Your task to perform on an android device: add a contact Image 0: 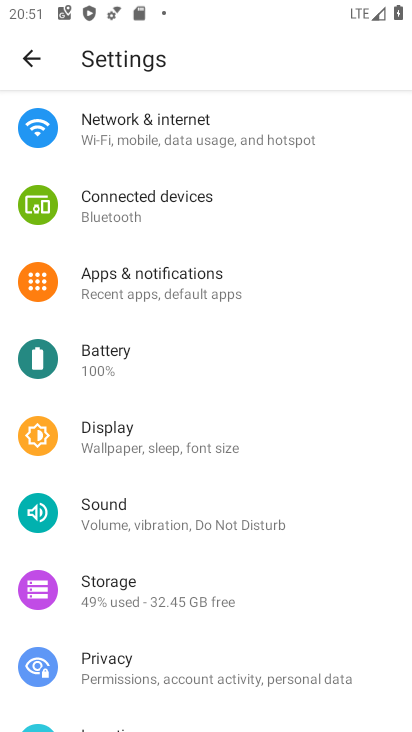
Step 0: press back button
Your task to perform on an android device: add a contact Image 1: 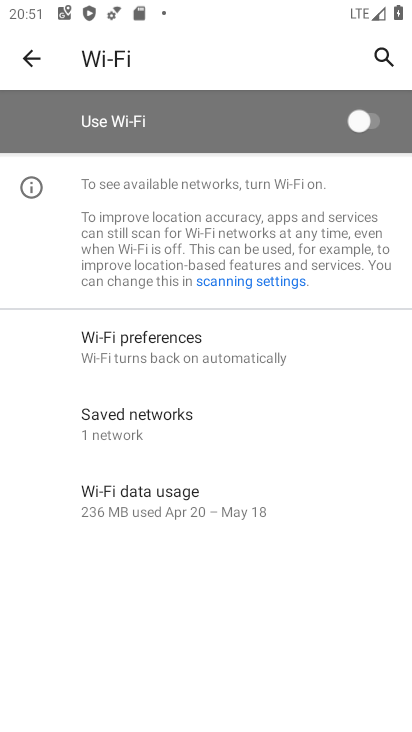
Step 1: press back button
Your task to perform on an android device: add a contact Image 2: 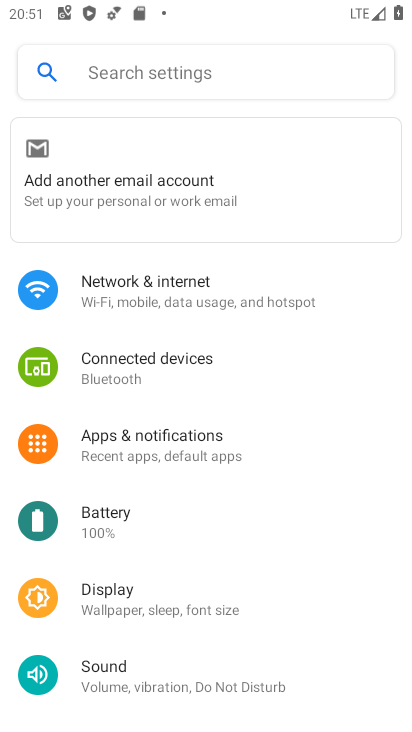
Step 2: press back button
Your task to perform on an android device: add a contact Image 3: 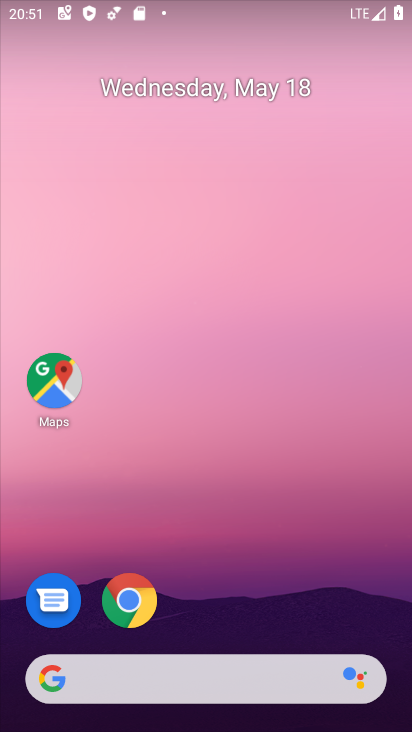
Step 3: drag from (252, 642) to (309, 43)
Your task to perform on an android device: add a contact Image 4: 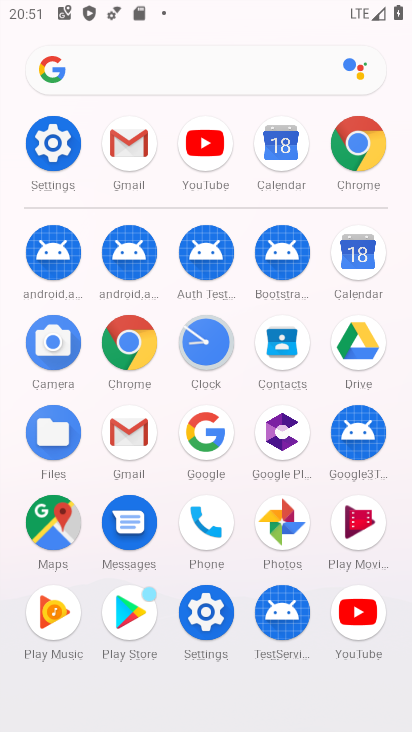
Step 4: click (286, 338)
Your task to perform on an android device: add a contact Image 5: 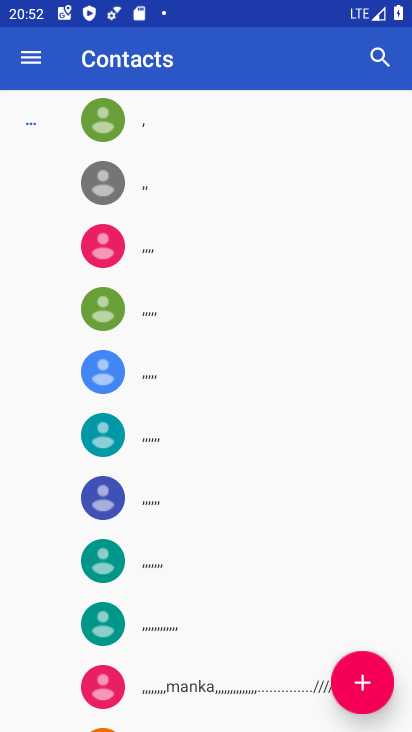
Step 5: click (354, 685)
Your task to perform on an android device: add a contact Image 6: 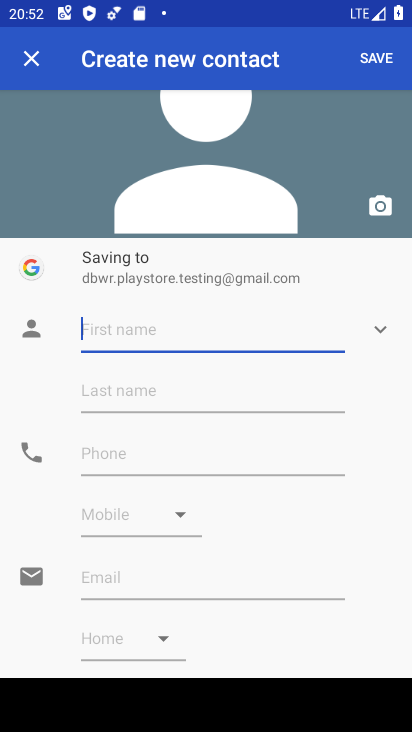
Step 6: click (126, 330)
Your task to perform on an android device: add a contact Image 7: 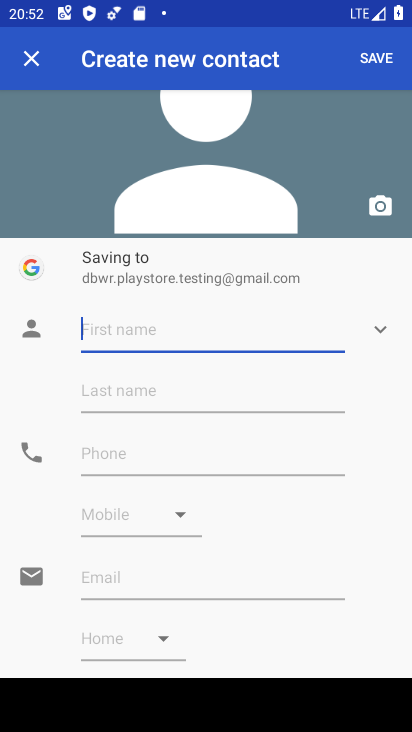
Step 7: type "fdgg"
Your task to perform on an android device: add a contact Image 8: 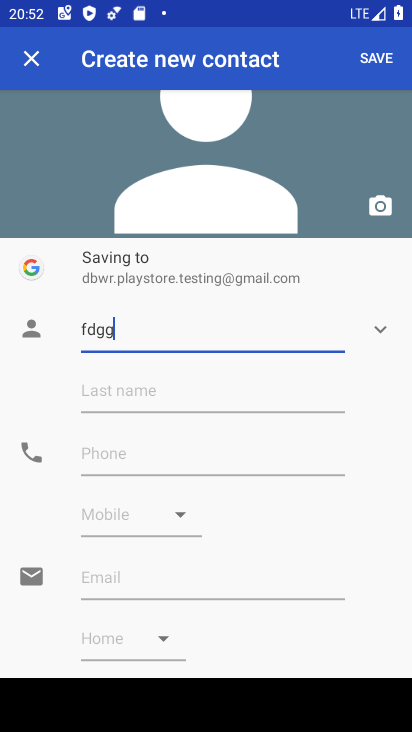
Step 8: click (111, 456)
Your task to perform on an android device: add a contact Image 9: 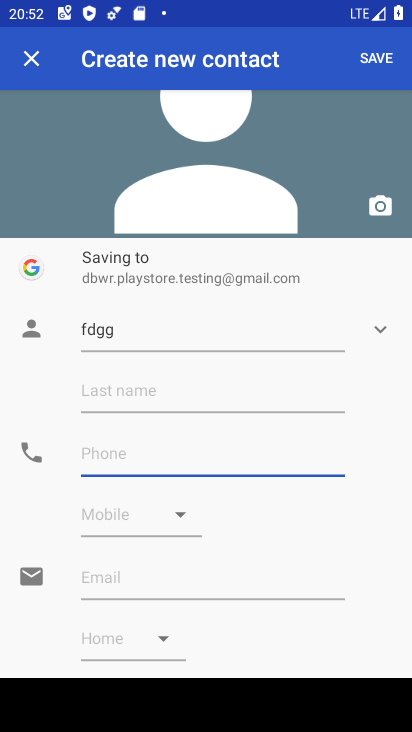
Step 9: type "88787"
Your task to perform on an android device: add a contact Image 10: 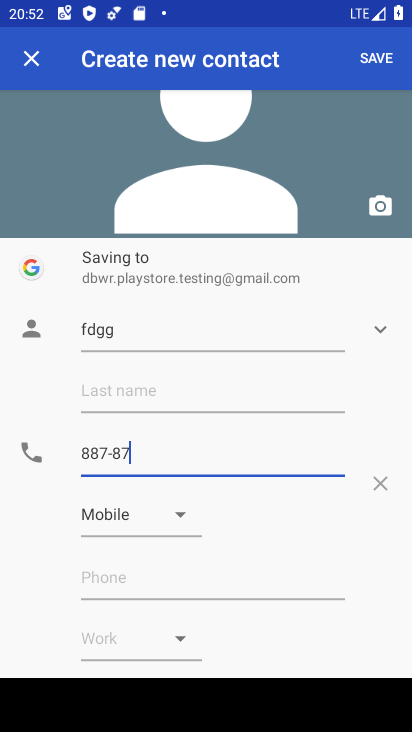
Step 10: click (369, 47)
Your task to perform on an android device: add a contact Image 11: 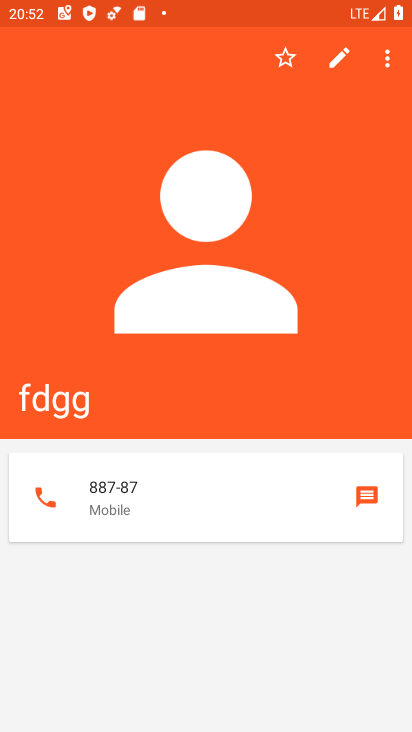
Step 11: task complete